Your task to perform on an android device: Go to Google Image 0: 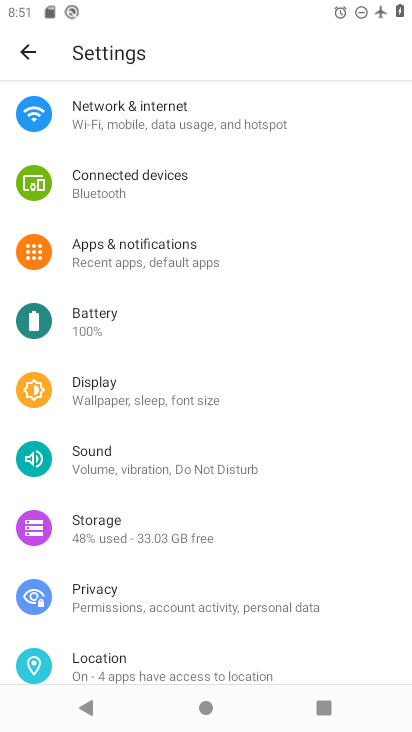
Step 0: press home button
Your task to perform on an android device: Go to Google Image 1: 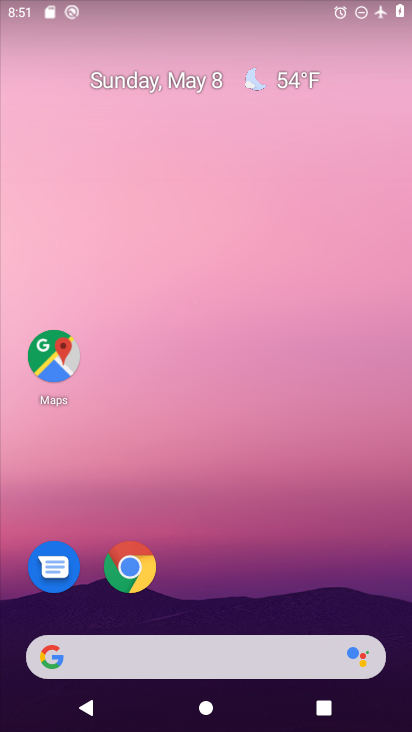
Step 1: drag from (214, 517) to (235, 93)
Your task to perform on an android device: Go to Google Image 2: 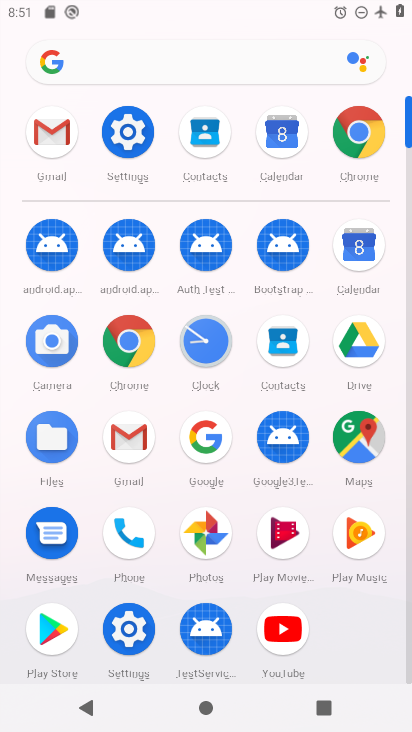
Step 2: click (204, 451)
Your task to perform on an android device: Go to Google Image 3: 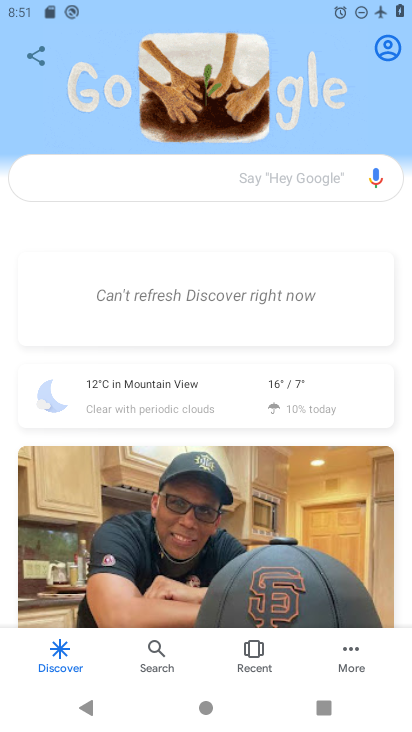
Step 3: task complete